Your task to perform on an android device: Show me recent news Image 0: 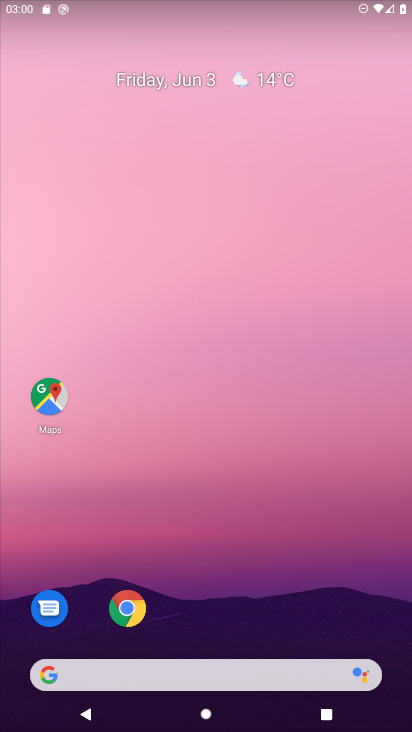
Step 0: drag from (336, 593) to (301, 140)
Your task to perform on an android device: Show me recent news Image 1: 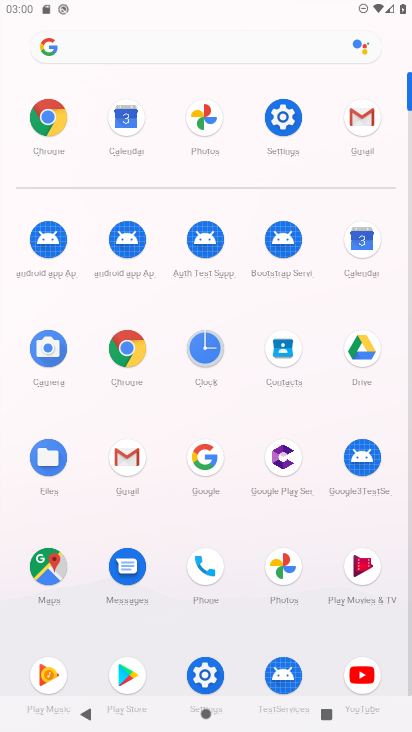
Step 1: click (125, 349)
Your task to perform on an android device: Show me recent news Image 2: 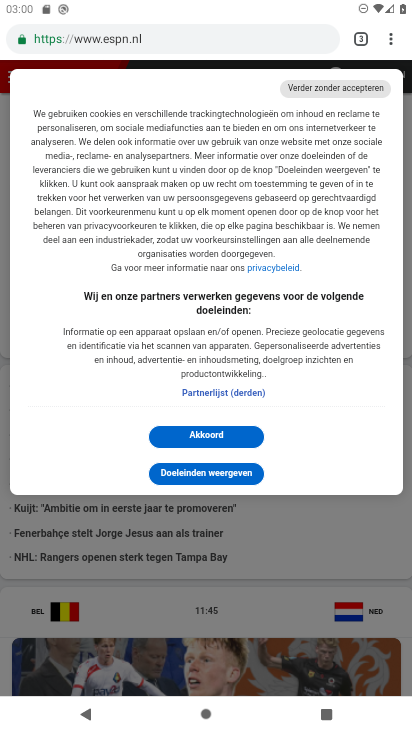
Step 2: click (291, 39)
Your task to perform on an android device: Show me recent news Image 3: 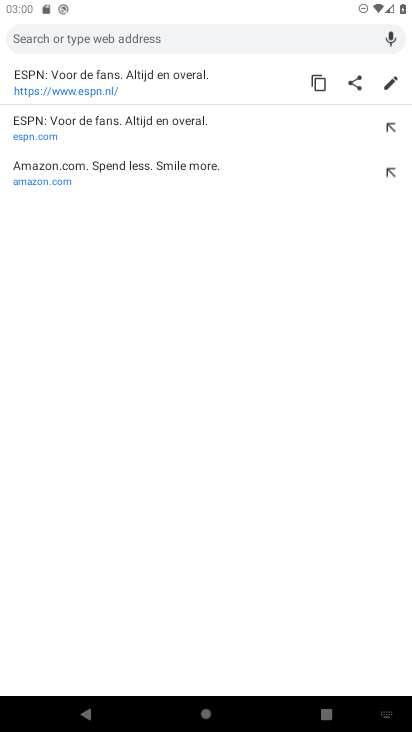
Step 3: type "news"
Your task to perform on an android device: Show me recent news Image 4: 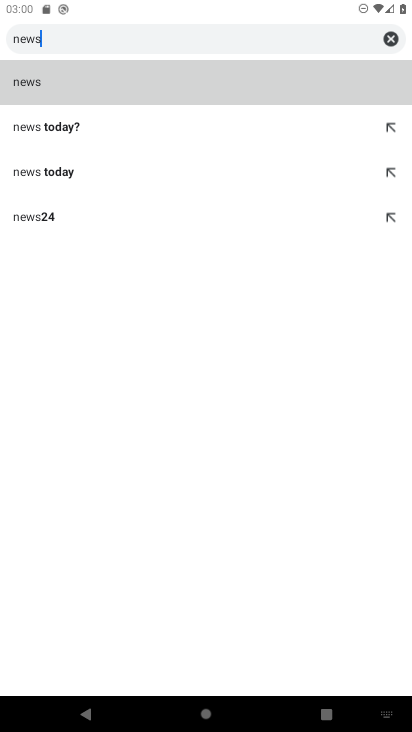
Step 4: click (33, 79)
Your task to perform on an android device: Show me recent news Image 5: 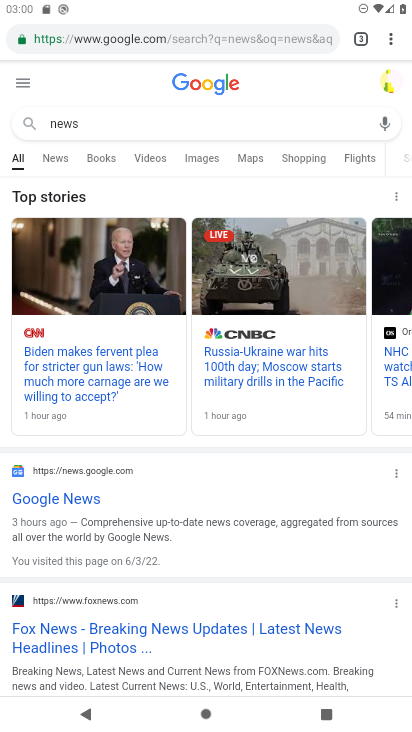
Step 5: click (56, 158)
Your task to perform on an android device: Show me recent news Image 6: 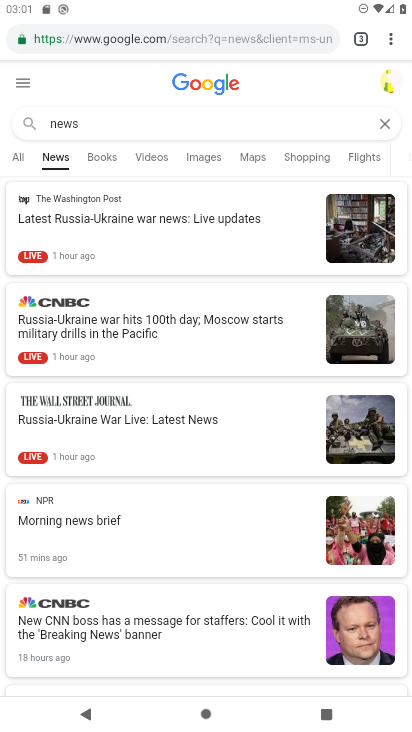
Step 6: task complete